Your task to perform on an android device: turn pop-ups off in chrome Image 0: 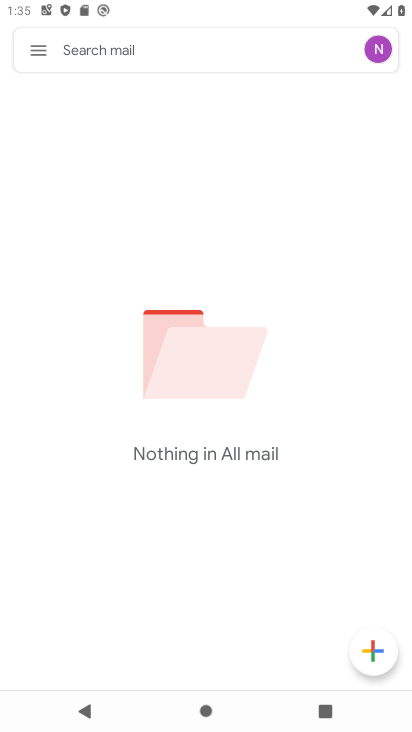
Step 0: press home button
Your task to perform on an android device: turn pop-ups off in chrome Image 1: 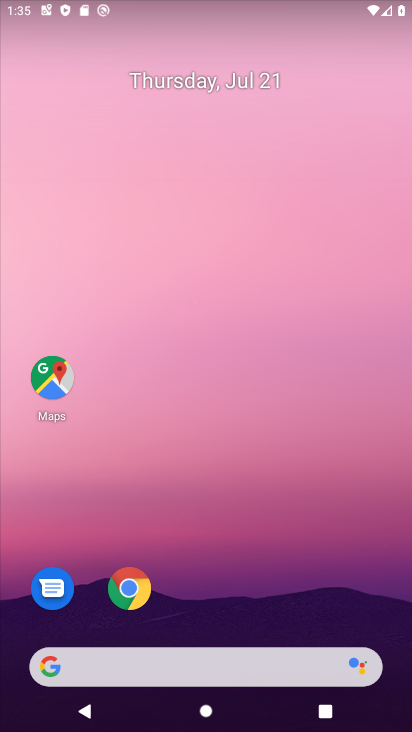
Step 1: drag from (227, 614) to (151, 265)
Your task to perform on an android device: turn pop-ups off in chrome Image 2: 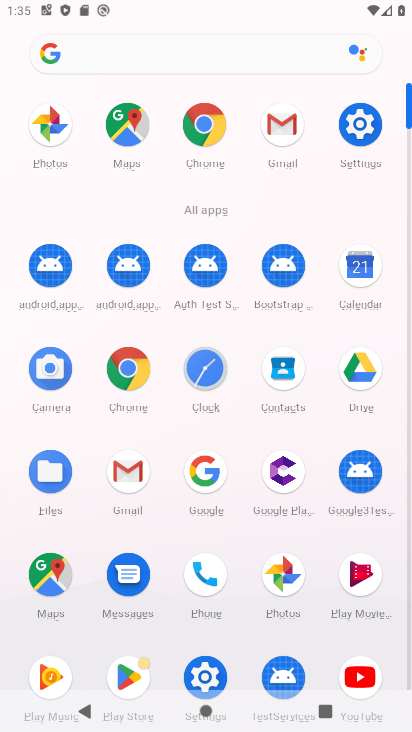
Step 2: click (210, 130)
Your task to perform on an android device: turn pop-ups off in chrome Image 3: 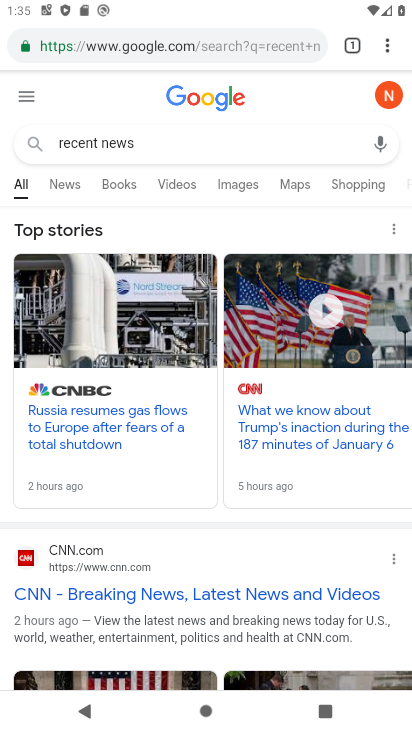
Step 3: click (380, 60)
Your task to perform on an android device: turn pop-ups off in chrome Image 4: 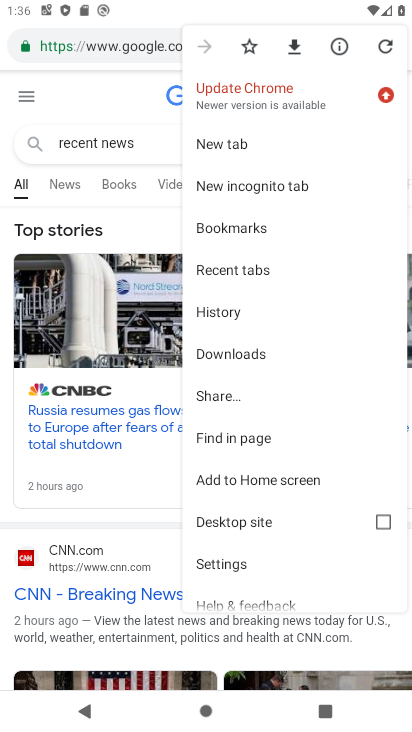
Step 4: click (261, 563)
Your task to perform on an android device: turn pop-ups off in chrome Image 5: 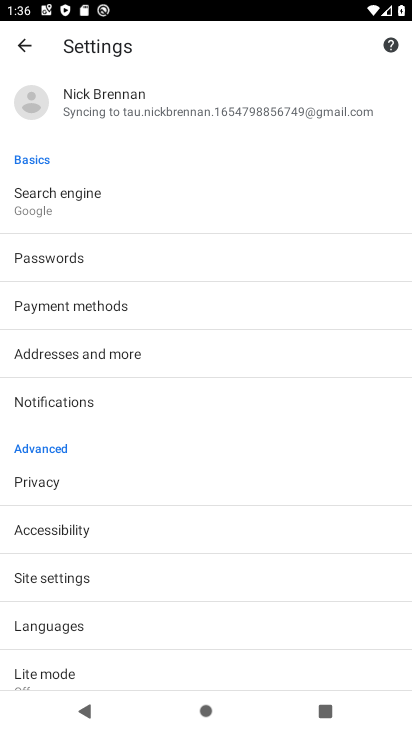
Step 5: click (165, 582)
Your task to perform on an android device: turn pop-ups off in chrome Image 6: 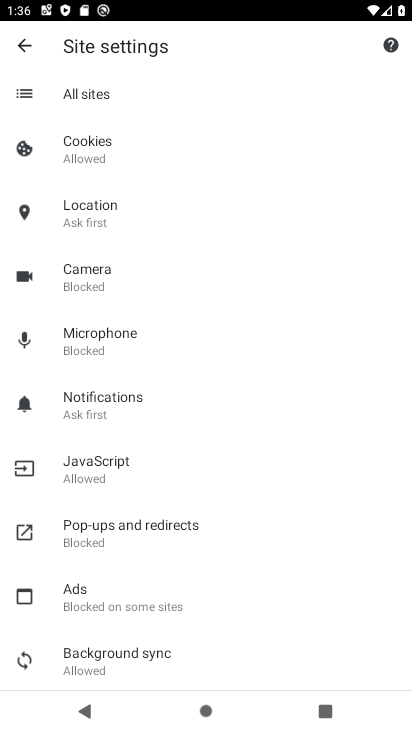
Step 6: click (135, 526)
Your task to perform on an android device: turn pop-ups off in chrome Image 7: 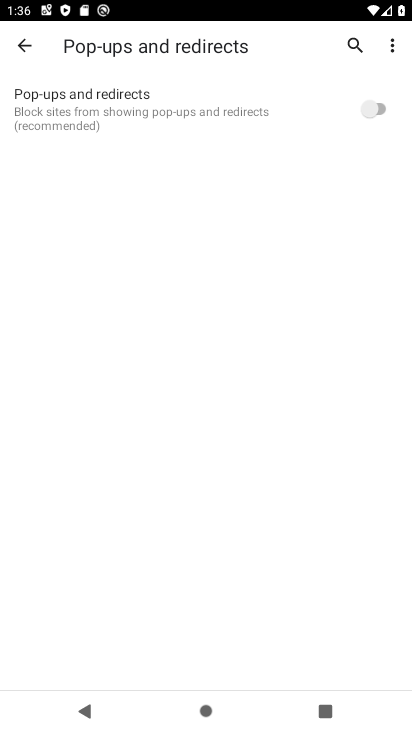
Step 7: task complete